Your task to perform on an android device: open the mobile data screen to see how much data has been used Image 0: 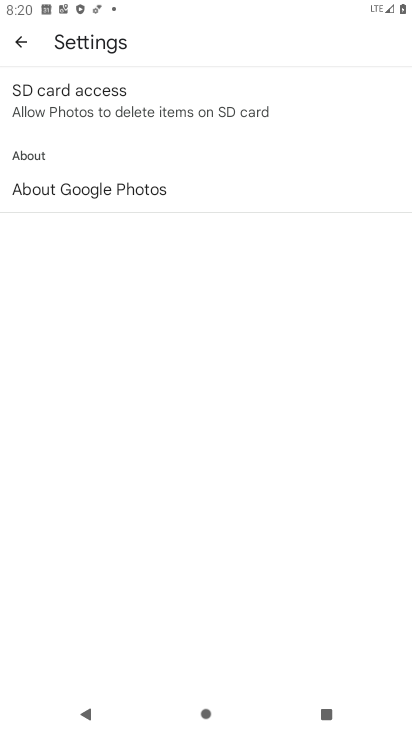
Step 0: press home button
Your task to perform on an android device: open the mobile data screen to see how much data has been used Image 1: 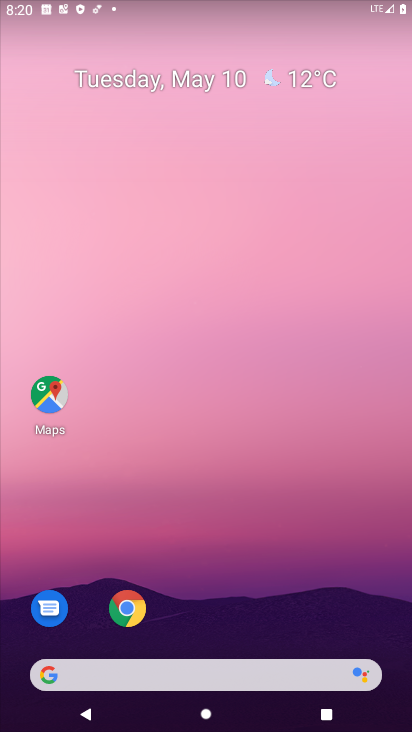
Step 1: drag from (180, 681) to (314, 262)
Your task to perform on an android device: open the mobile data screen to see how much data has been used Image 2: 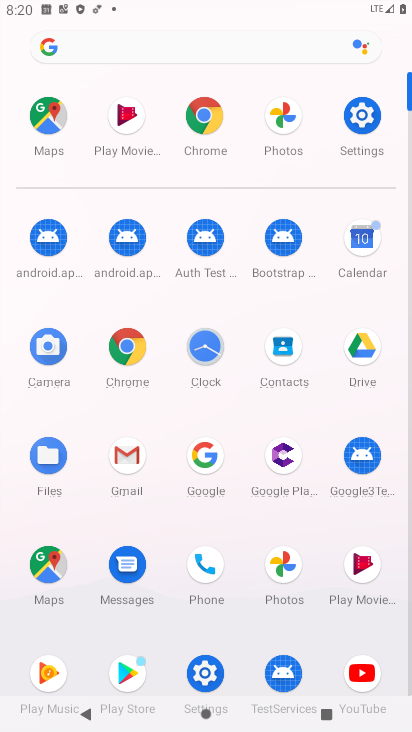
Step 2: click (368, 121)
Your task to perform on an android device: open the mobile data screen to see how much data has been used Image 3: 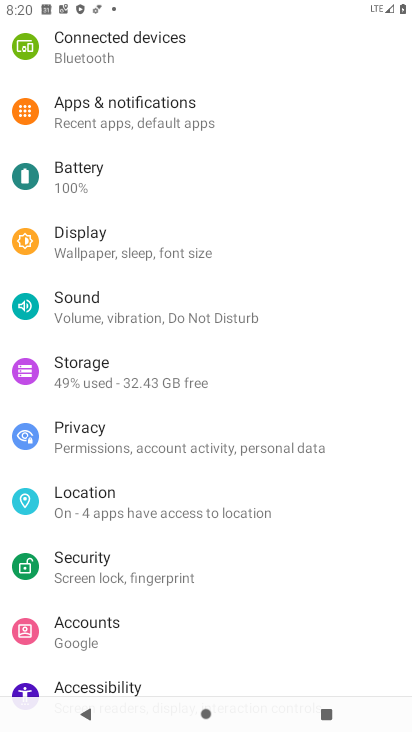
Step 3: drag from (296, 139) to (257, 437)
Your task to perform on an android device: open the mobile data screen to see how much data has been used Image 4: 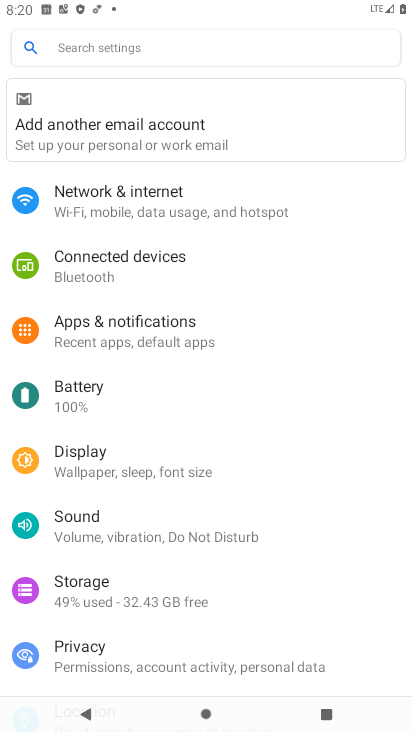
Step 4: click (133, 199)
Your task to perform on an android device: open the mobile data screen to see how much data has been used Image 5: 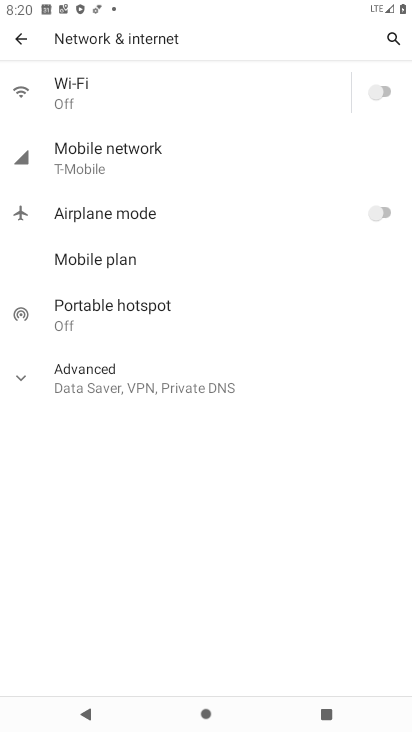
Step 5: click (110, 148)
Your task to perform on an android device: open the mobile data screen to see how much data has been used Image 6: 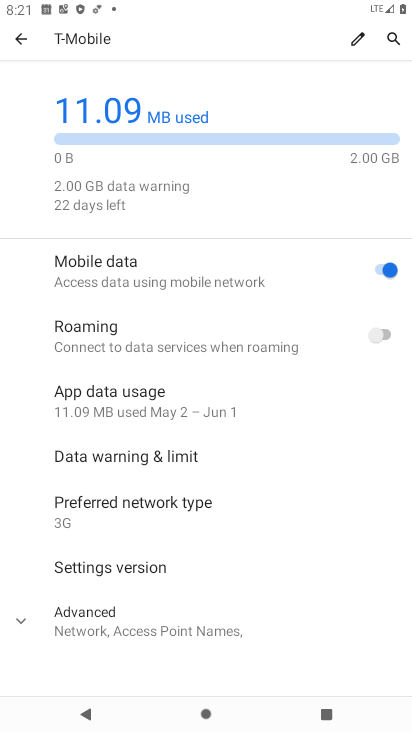
Step 6: task complete